Your task to perform on an android device: Open Google Chrome Image 0: 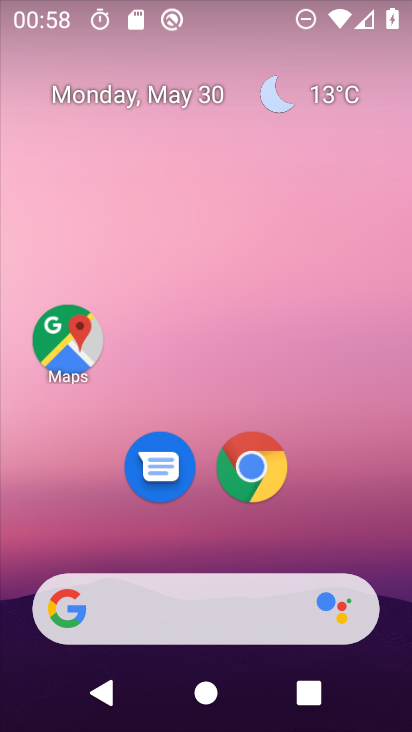
Step 0: click (247, 481)
Your task to perform on an android device: Open Google Chrome Image 1: 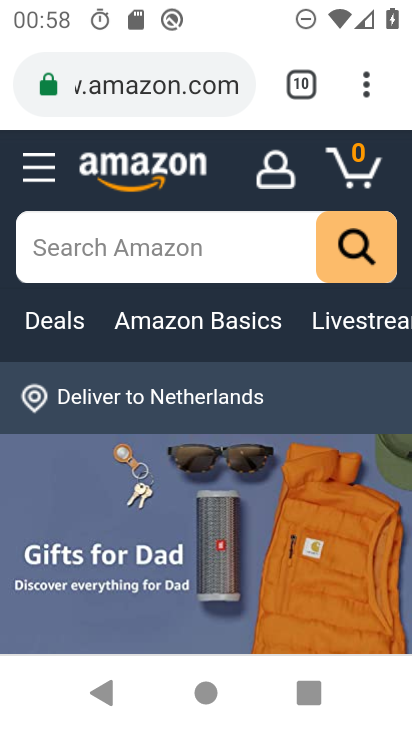
Step 1: task complete